Your task to perform on an android device: Search for the most popular books on Goodreads Image 0: 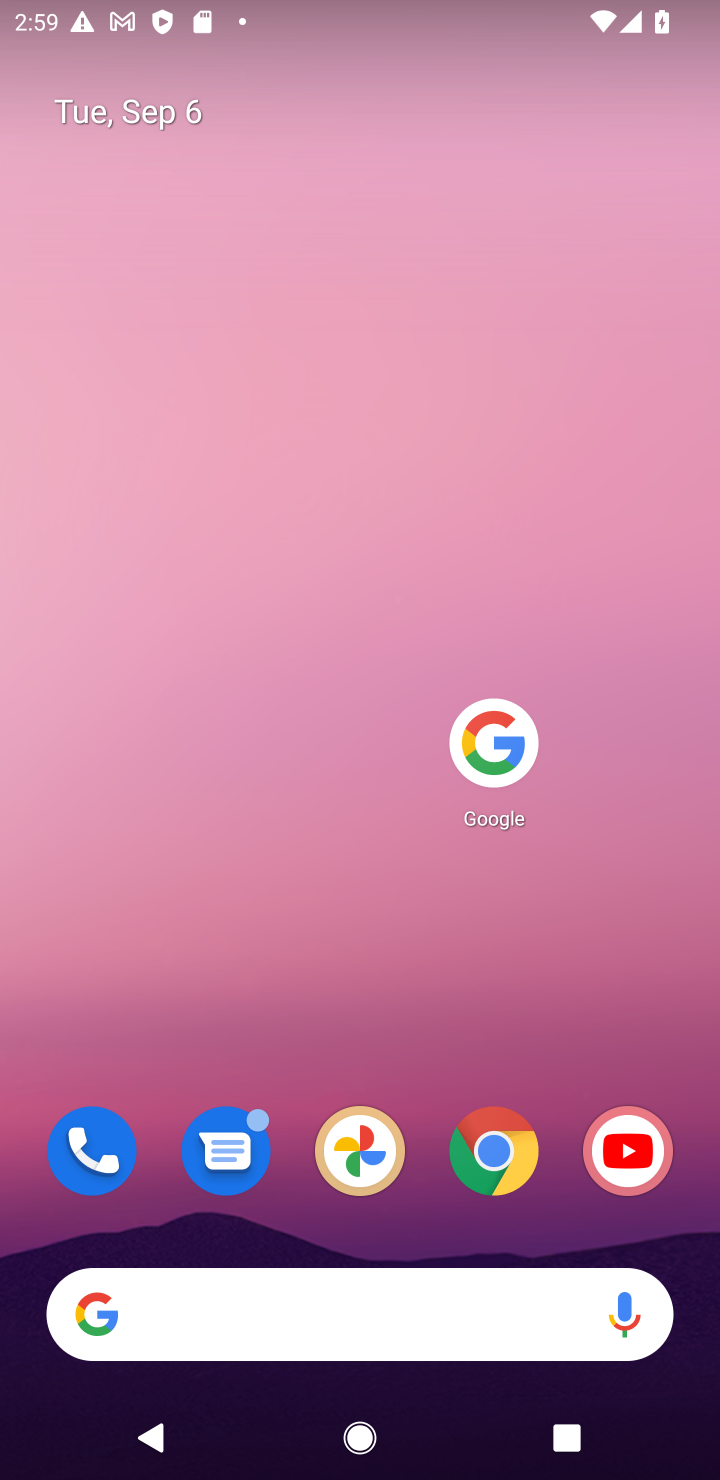
Step 0: click (466, 729)
Your task to perform on an android device: Search for the most popular books on Goodreads Image 1: 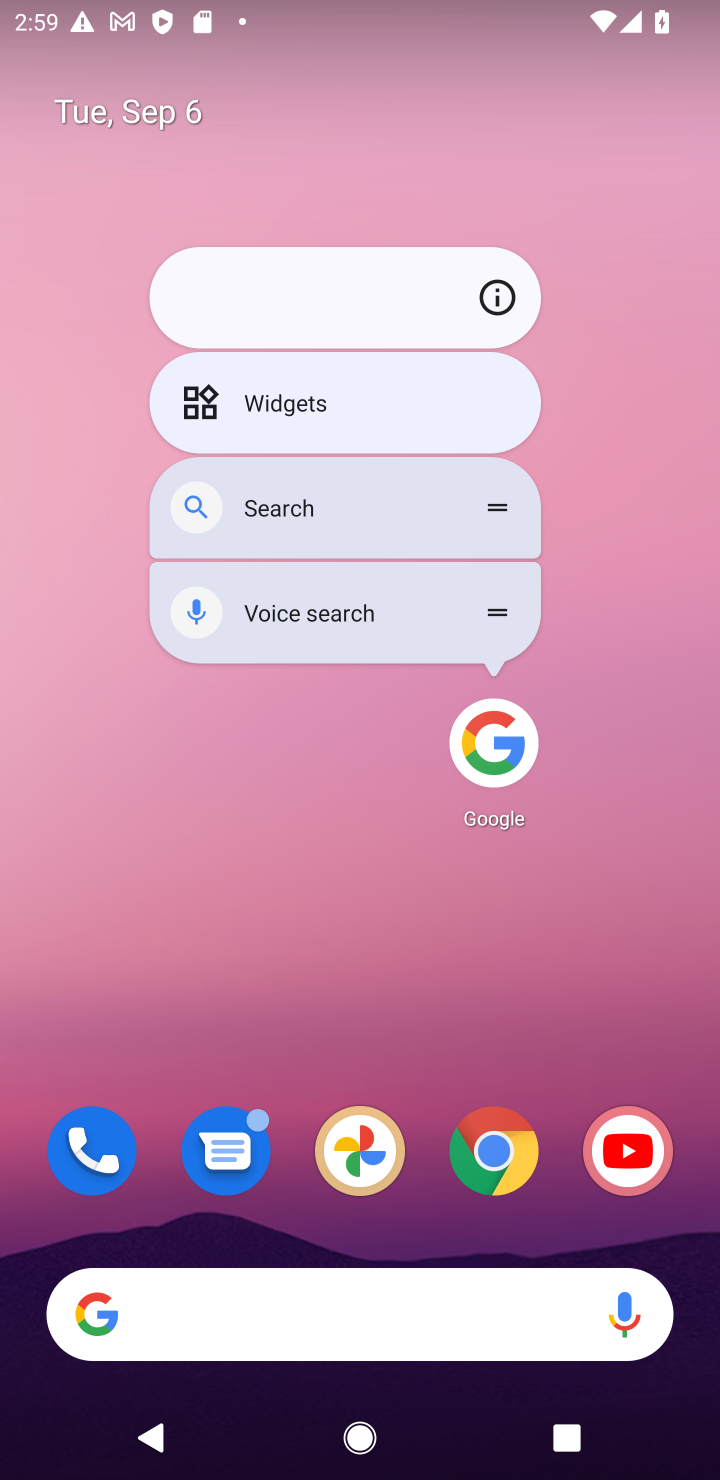
Step 1: click (493, 738)
Your task to perform on an android device: Search for the most popular books on Goodreads Image 2: 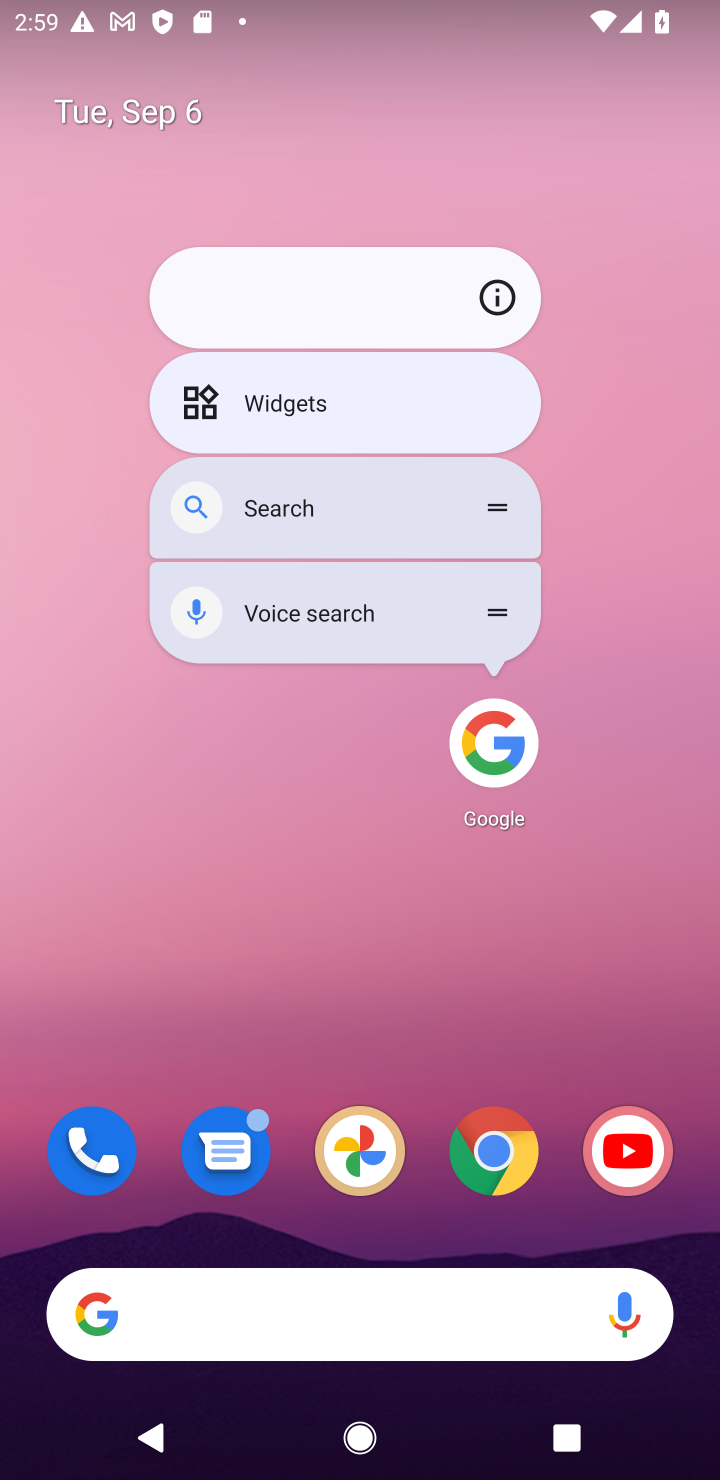
Step 2: click (475, 730)
Your task to perform on an android device: Search for the most popular books on Goodreads Image 3: 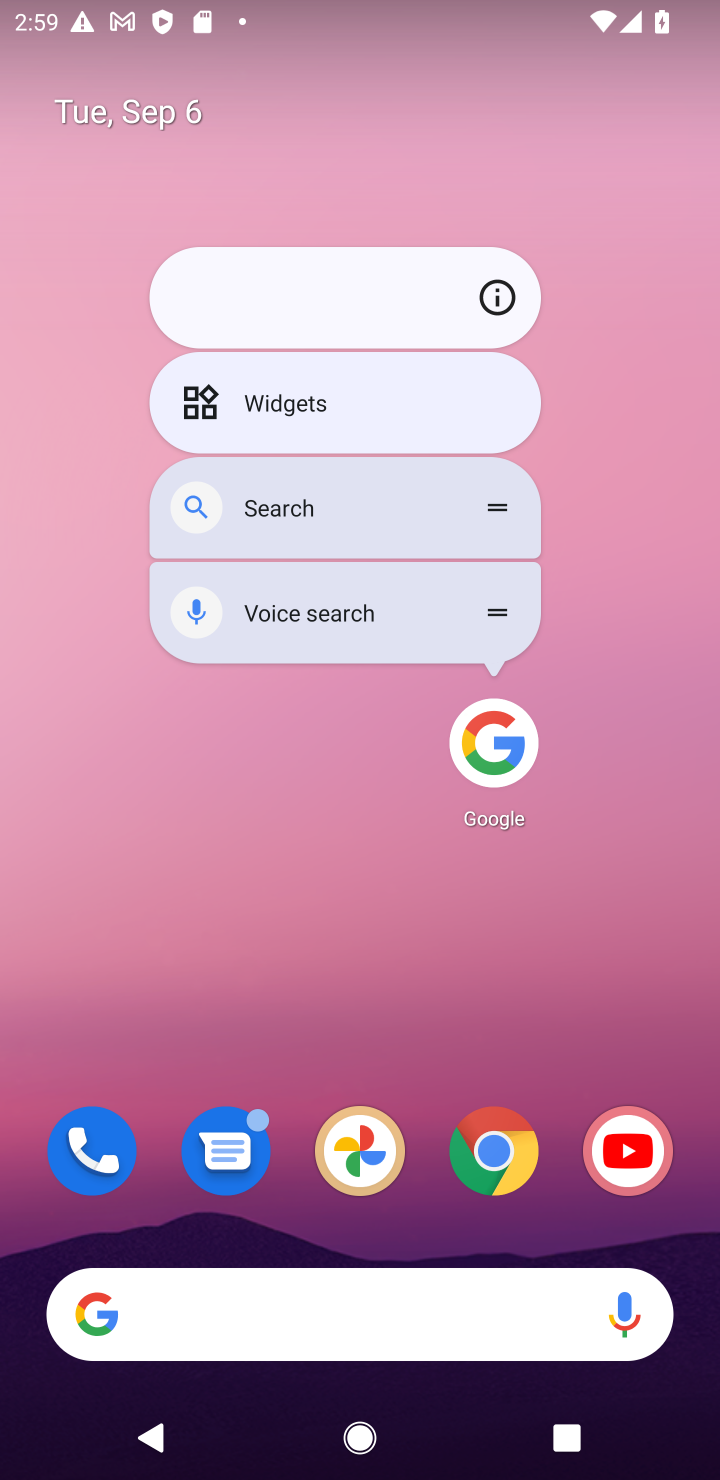
Step 3: click (357, 730)
Your task to perform on an android device: Search for the most popular books on Goodreads Image 4: 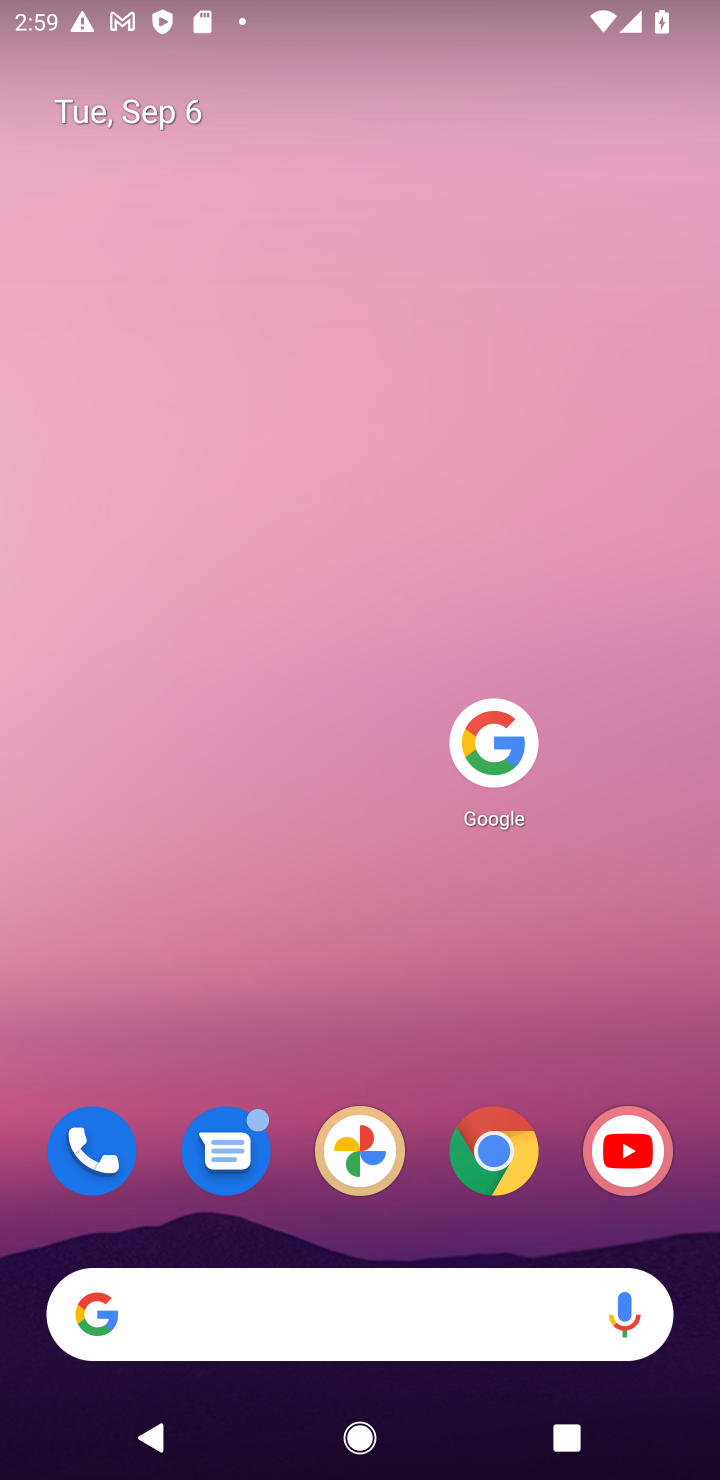
Step 4: click (489, 747)
Your task to perform on an android device: Search for the most popular books on Goodreads Image 5: 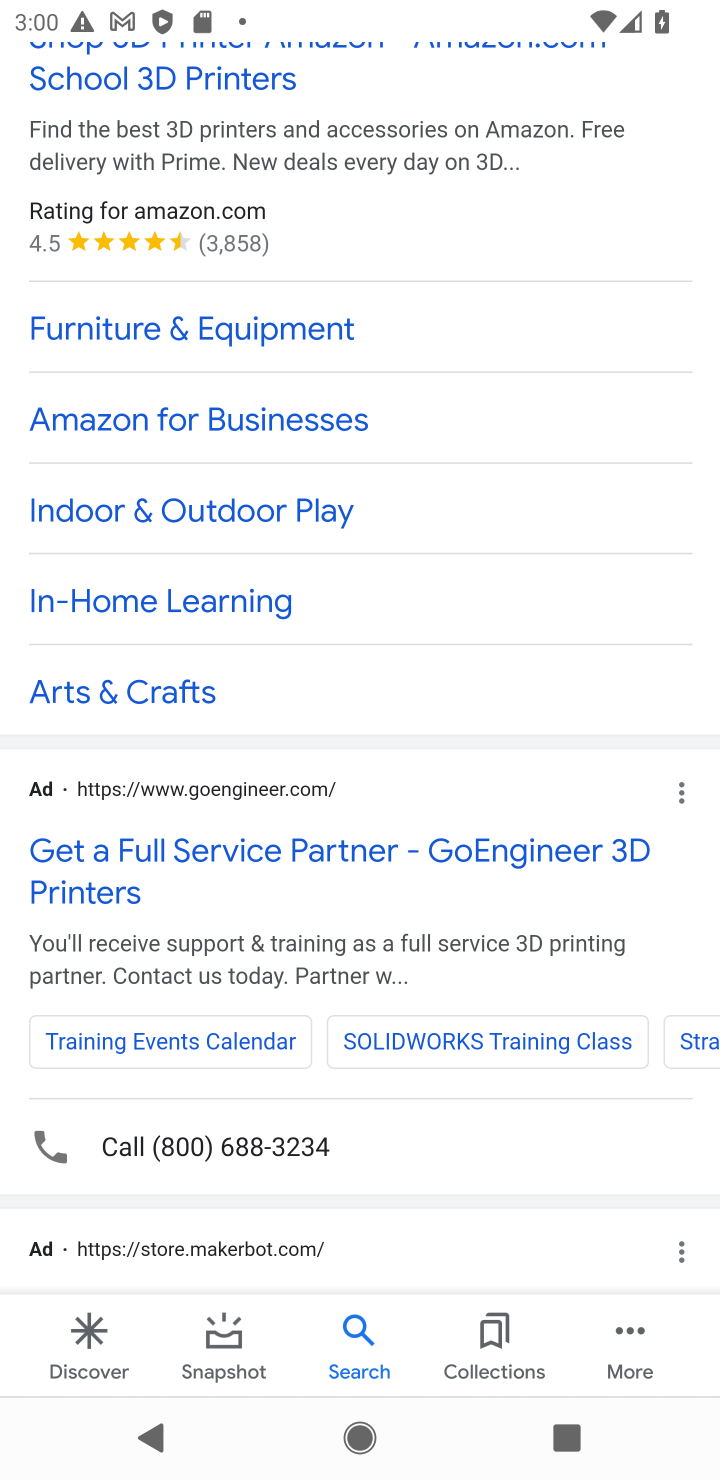
Step 5: drag from (337, 123) to (352, 1420)
Your task to perform on an android device: Search for the most popular books on Goodreads Image 6: 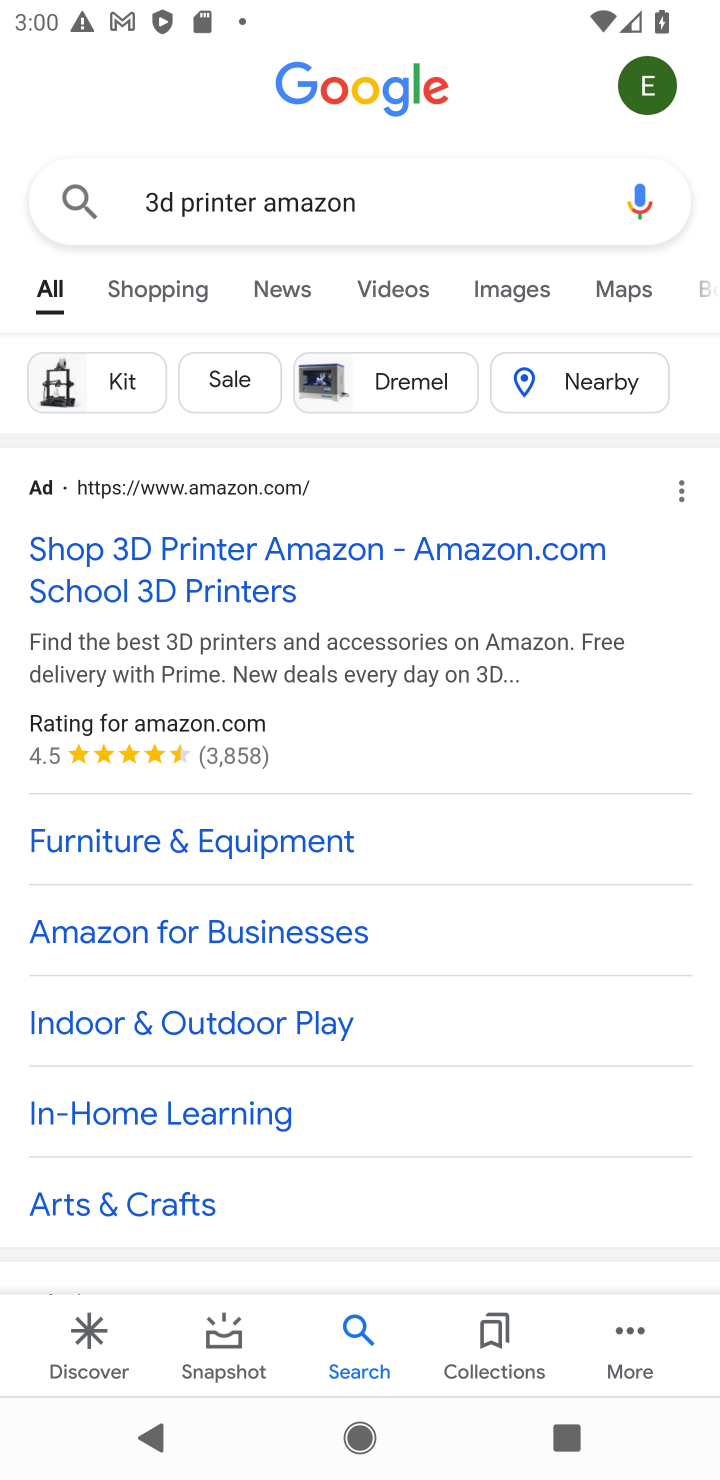
Step 6: click (404, 202)
Your task to perform on an android device: Search for the most popular books on Goodreads Image 7: 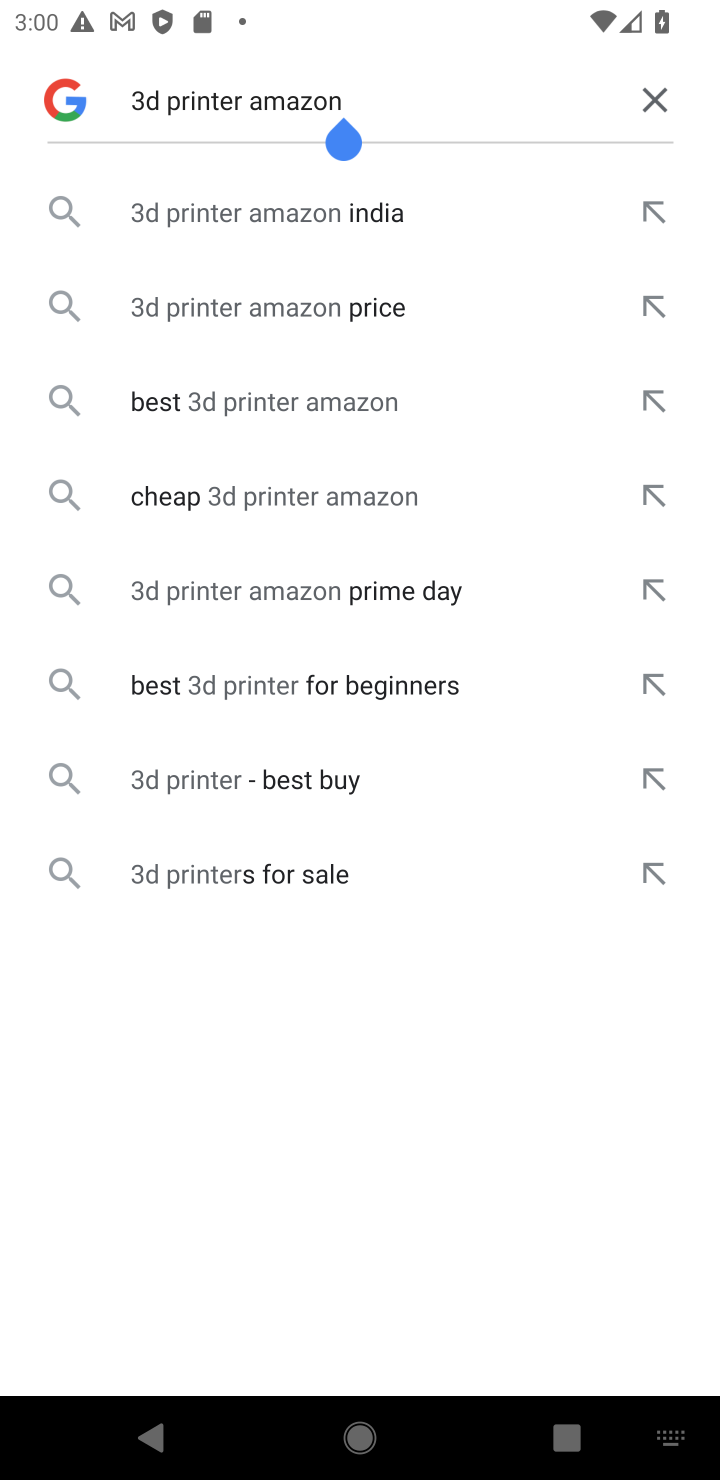
Step 7: click (649, 102)
Your task to perform on an android device: Search for the most popular books on Goodreads Image 8: 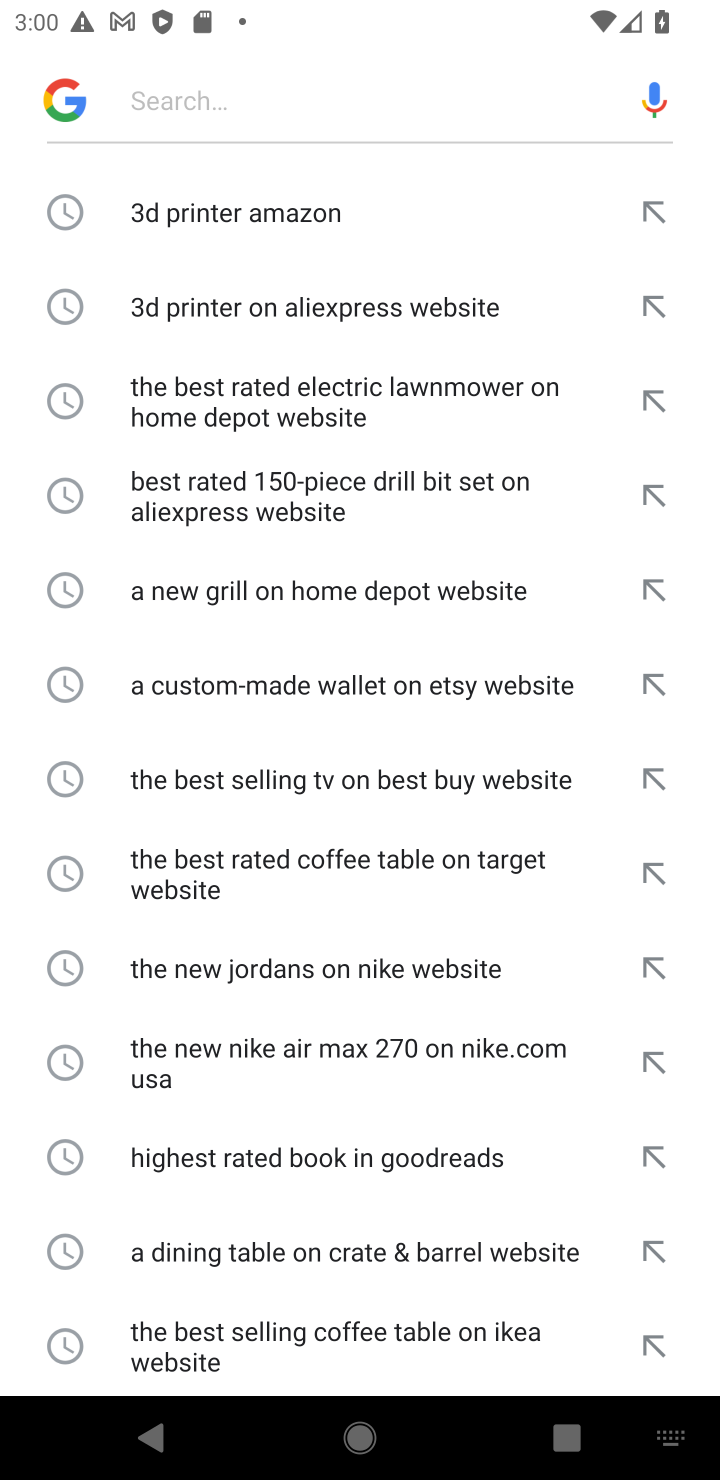
Step 8: click (379, 70)
Your task to perform on an android device: Search for the most popular books on Goodreads Image 9: 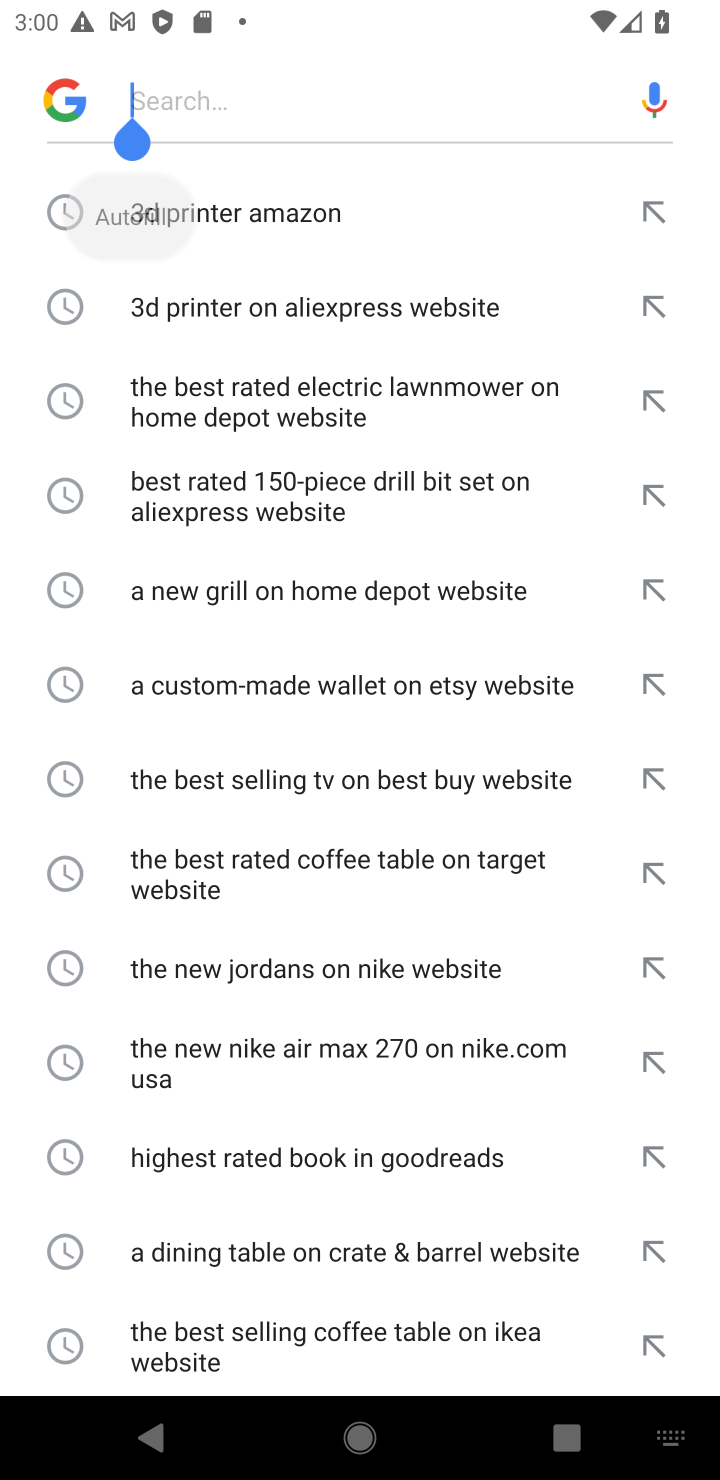
Step 9: type "the most popular books on Goodreads "
Your task to perform on an android device: Search for the most popular books on Goodreads Image 10: 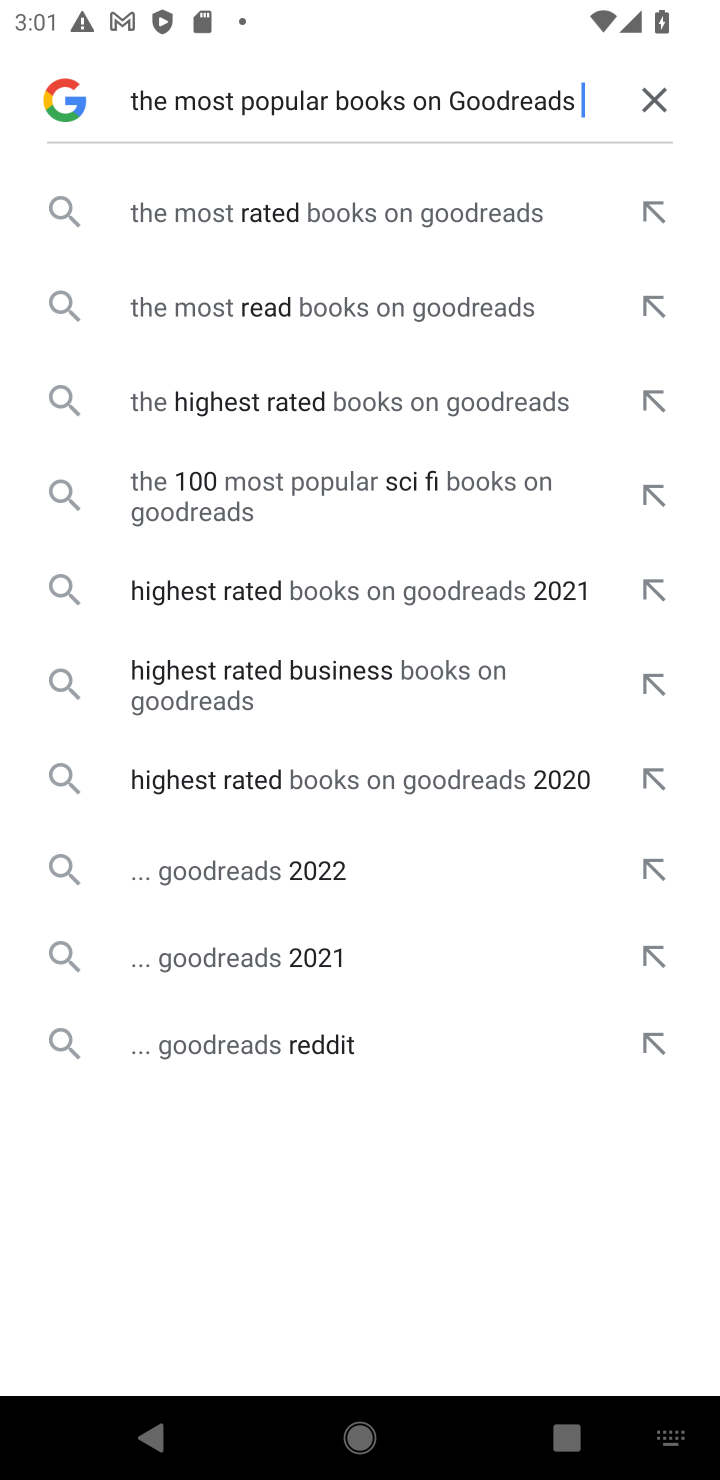
Step 10: click (310, 225)
Your task to perform on an android device: Search for the most popular books on Goodreads Image 11: 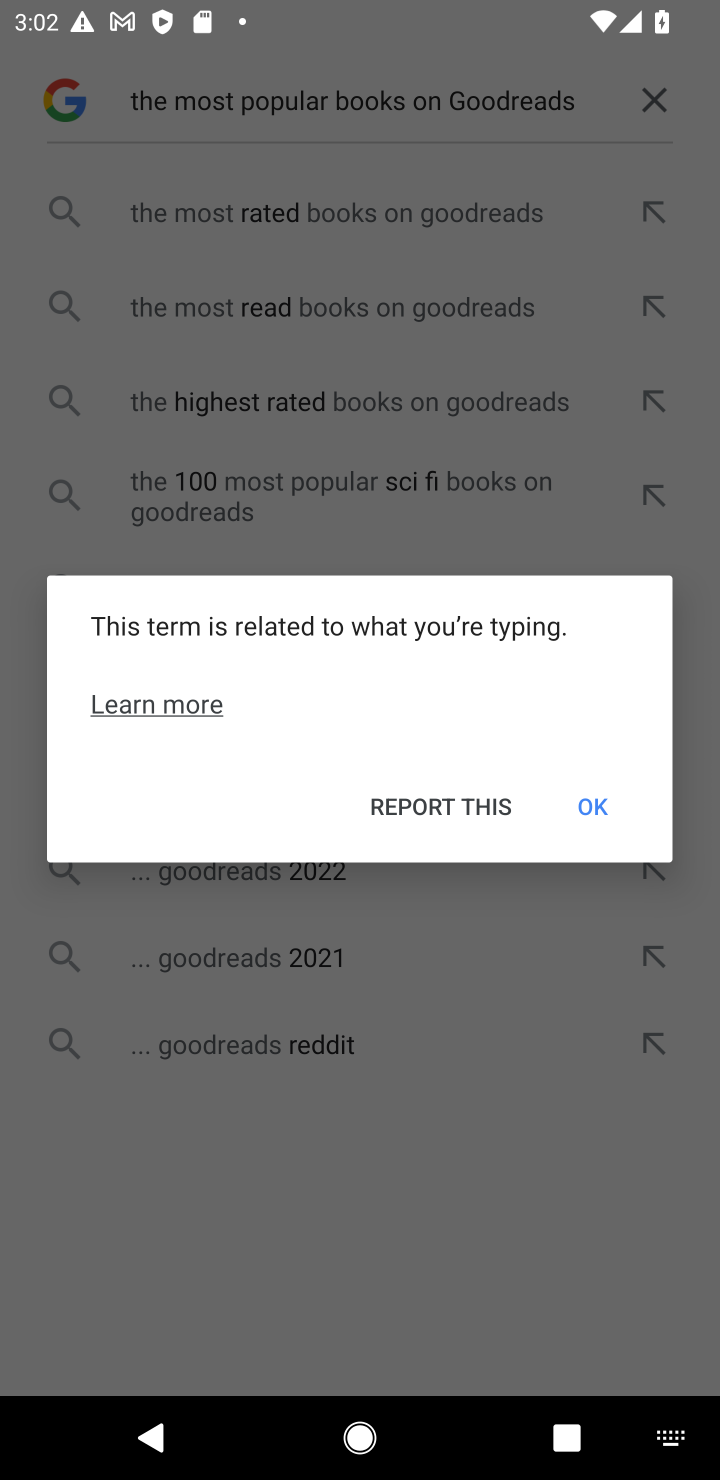
Step 11: click (612, 785)
Your task to perform on an android device: Search for the most popular books on Goodreads Image 12: 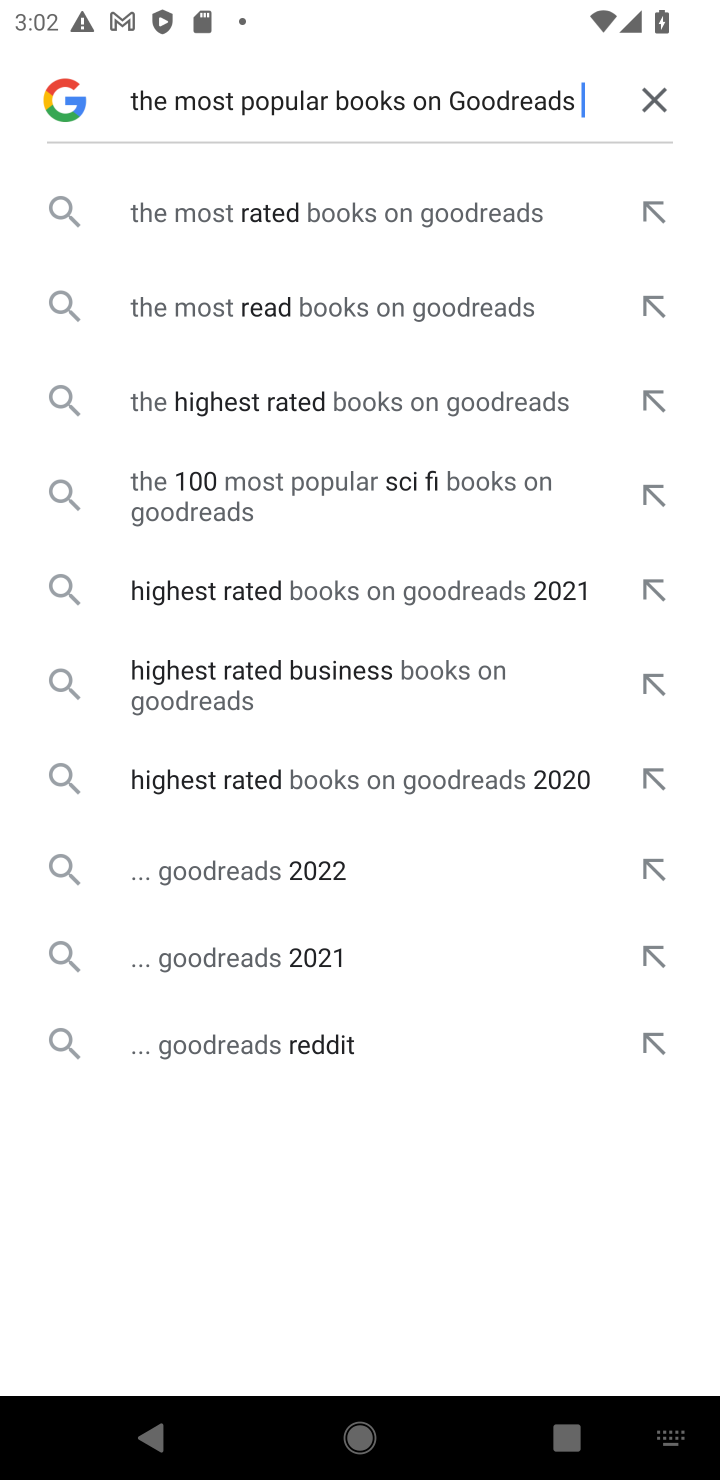
Step 12: click (337, 320)
Your task to perform on an android device: Search for the most popular books on Goodreads Image 13: 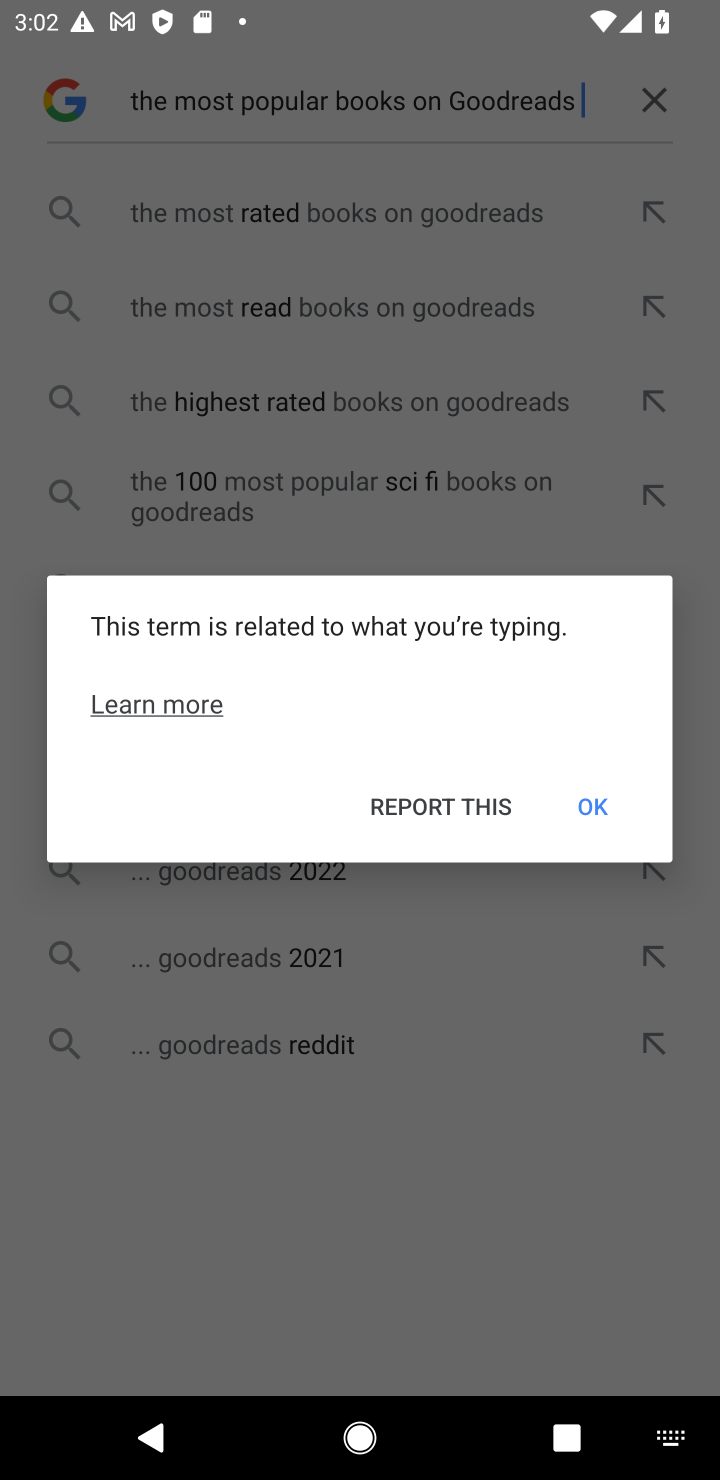
Step 13: click (577, 797)
Your task to perform on an android device: Search for the most popular books on Goodreads Image 14: 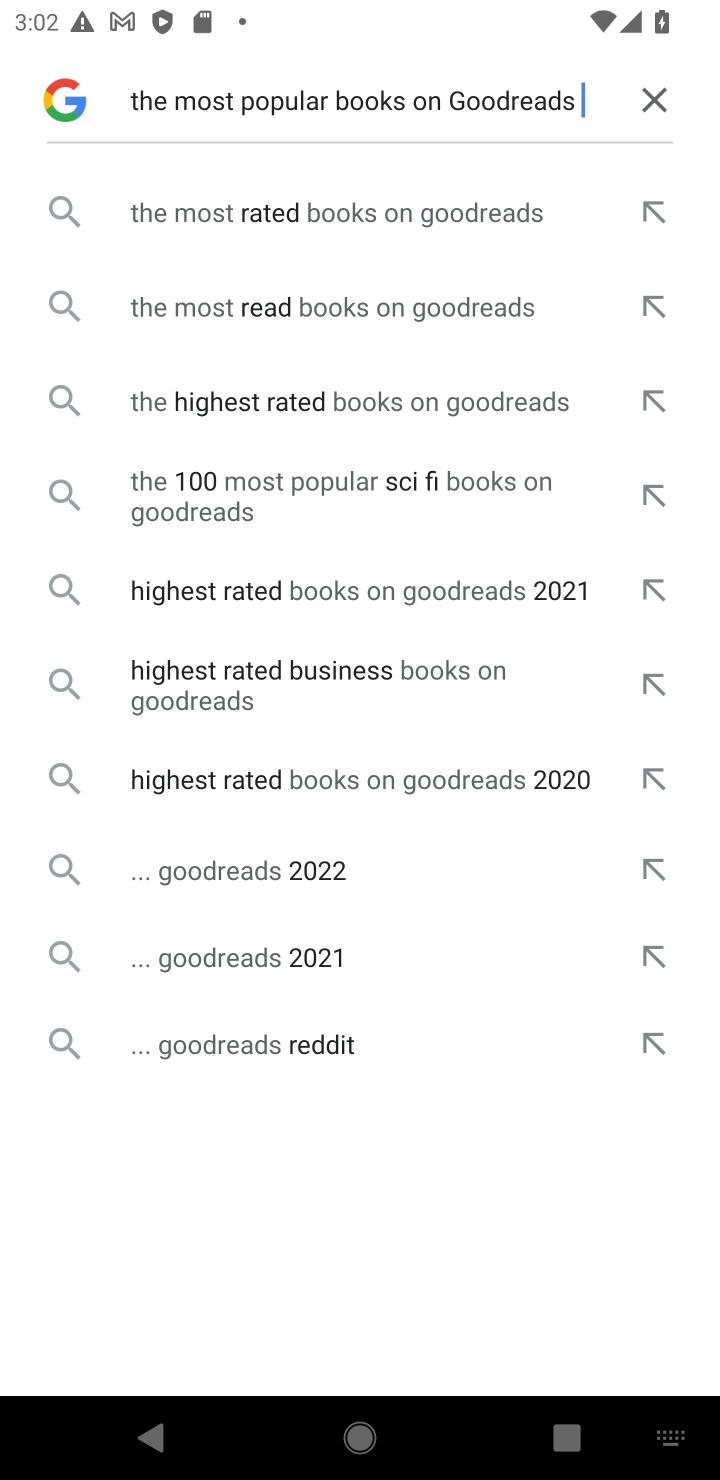
Step 14: click (284, 392)
Your task to perform on an android device: Search for the most popular books on Goodreads Image 15: 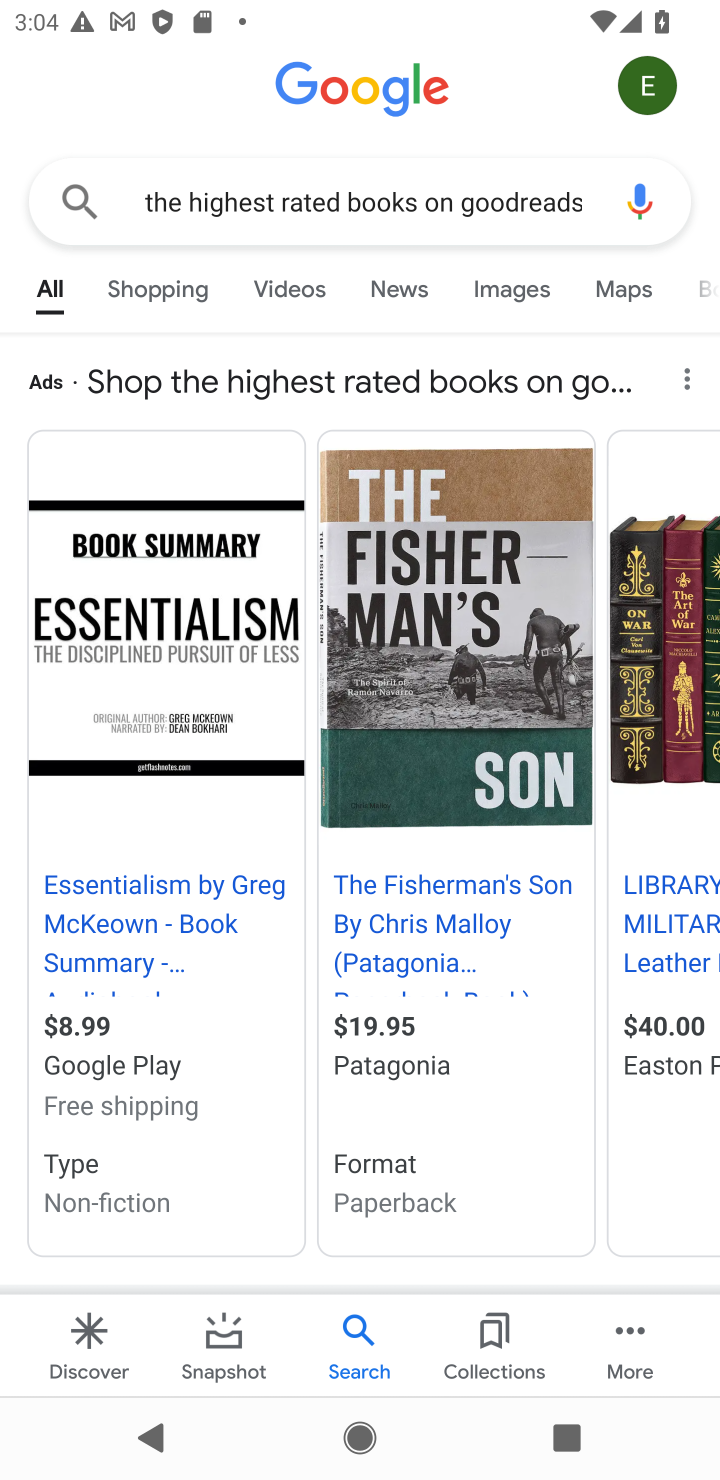
Step 15: task complete